Your task to perform on an android device: open wifi settings Image 0: 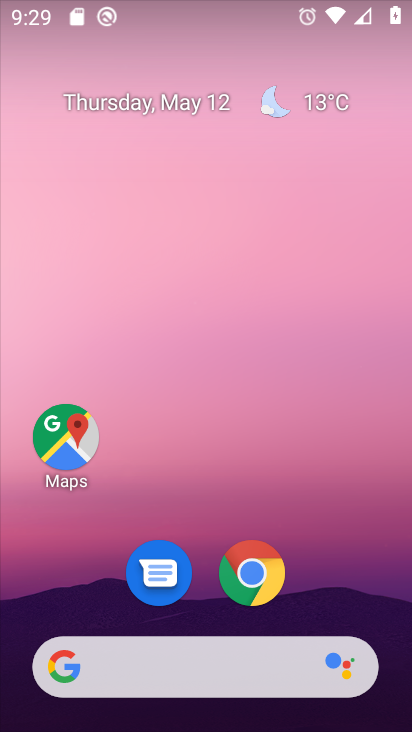
Step 0: drag from (404, 699) to (329, 237)
Your task to perform on an android device: open wifi settings Image 1: 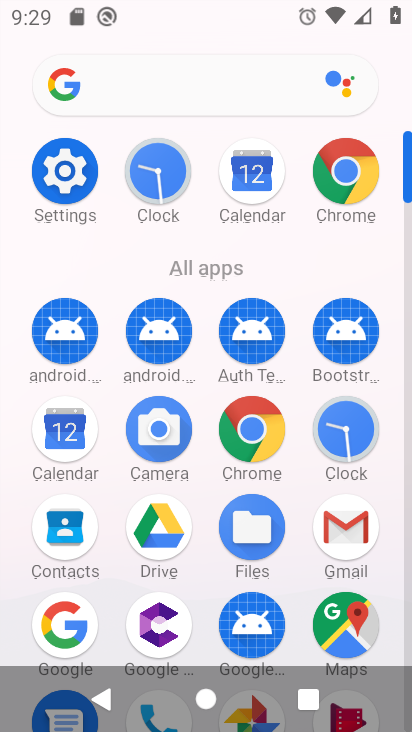
Step 1: click (51, 179)
Your task to perform on an android device: open wifi settings Image 2: 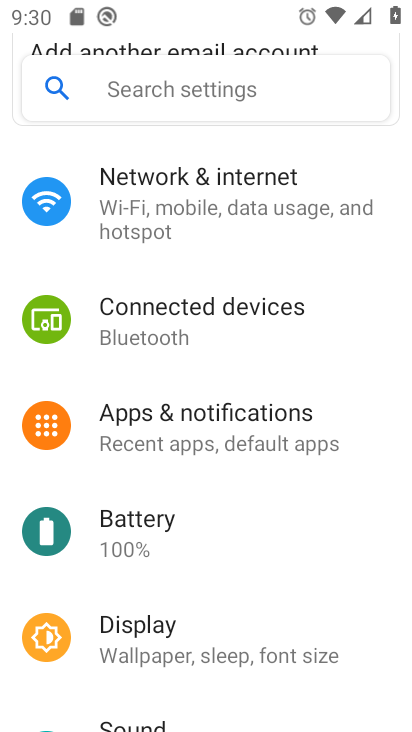
Step 2: click (407, 217)
Your task to perform on an android device: open wifi settings Image 3: 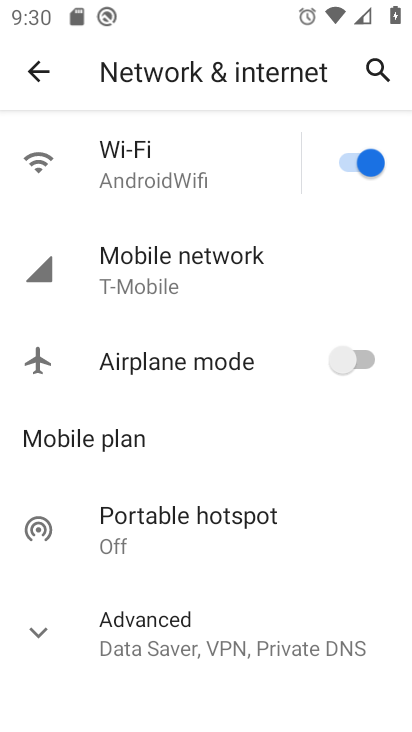
Step 3: click (27, 74)
Your task to perform on an android device: open wifi settings Image 4: 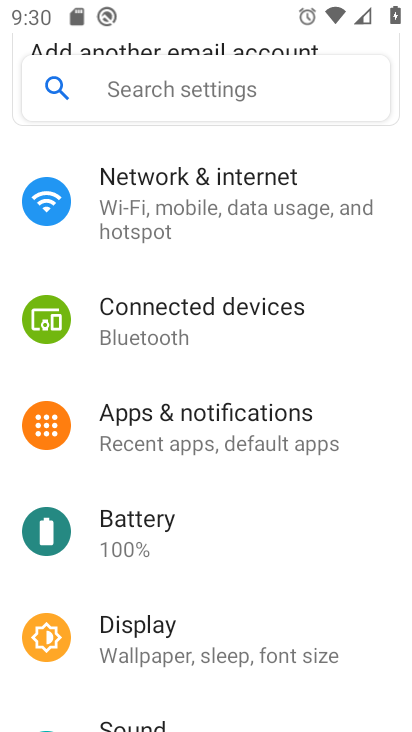
Step 4: drag from (388, 181) to (409, 434)
Your task to perform on an android device: open wifi settings Image 5: 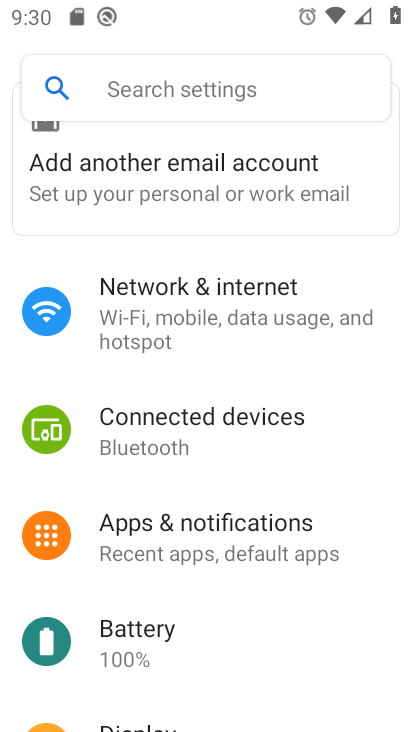
Step 5: click (175, 304)
Your task to perform on an android device: open wifi settings Image 6: 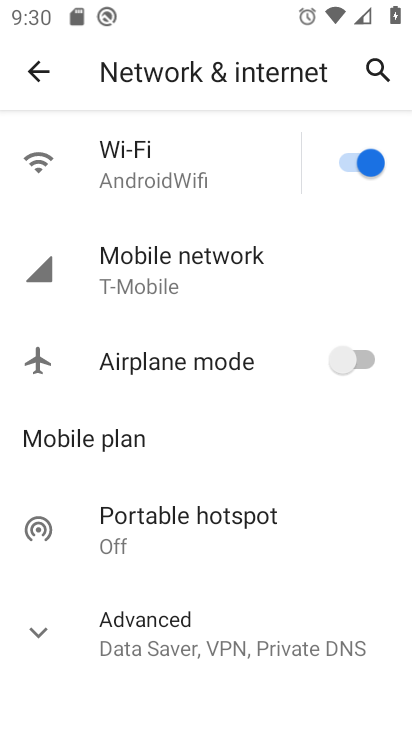
Step 6: click (166, 182)
Your task to perform on an android device: open wifi settings Image 7: 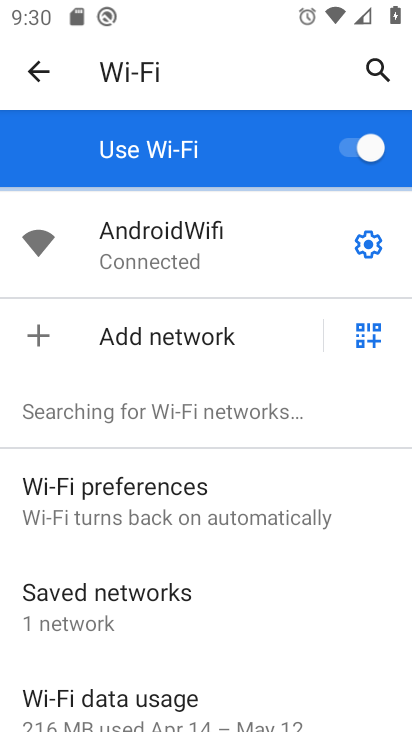
Step 7: click (365, 254)
Your task to perform on an android device: open wifi settings Image 8: 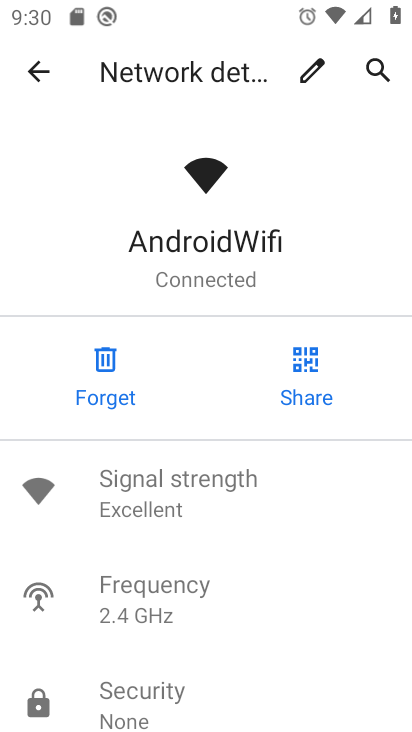
Step 8: task complete